Your task to perform on an android device: Open privacy settings Image 0: 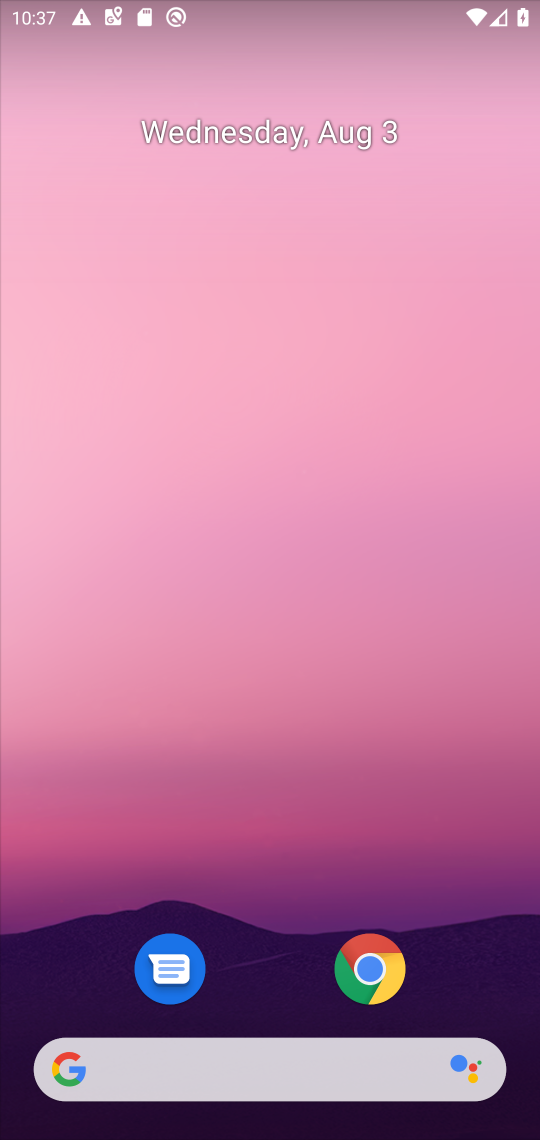
Step 0: drag from (296, 1013) to (256, 94)
Your task to perform on an android device: Open privacy settings Image 1: 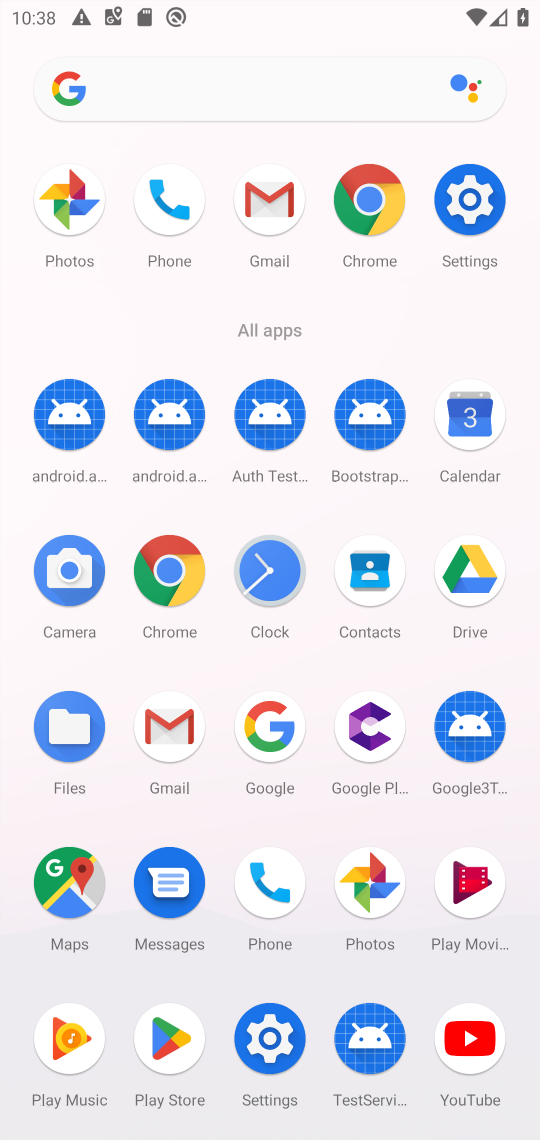
Step 1: click (264, 1034)
Your task to perform on an android device: Open privacy settings Image 2: 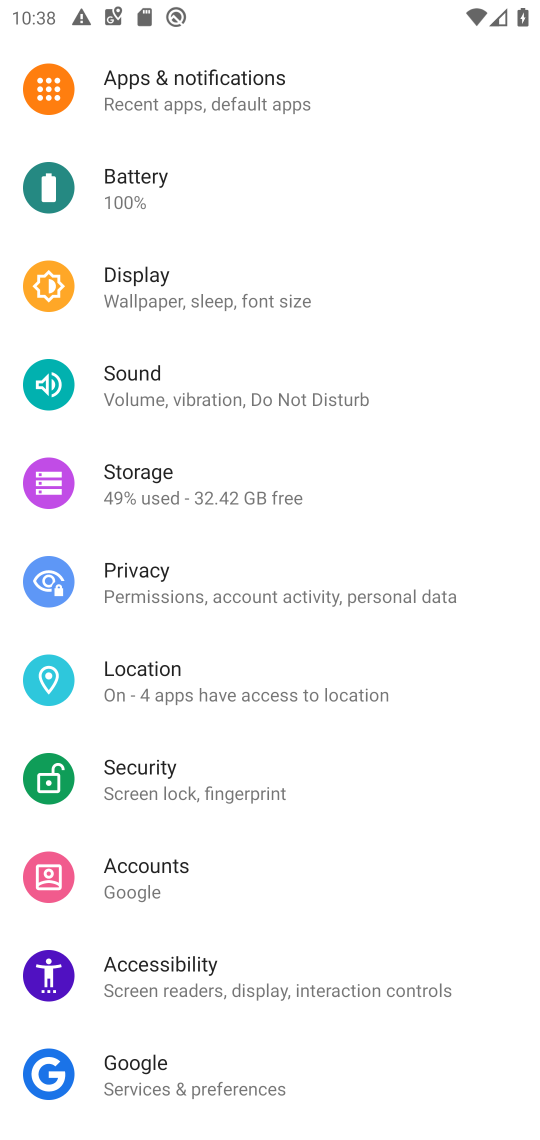
Step 2: click (135, 588)
Your task to perform on an android device: Open privacy settings Image 3: 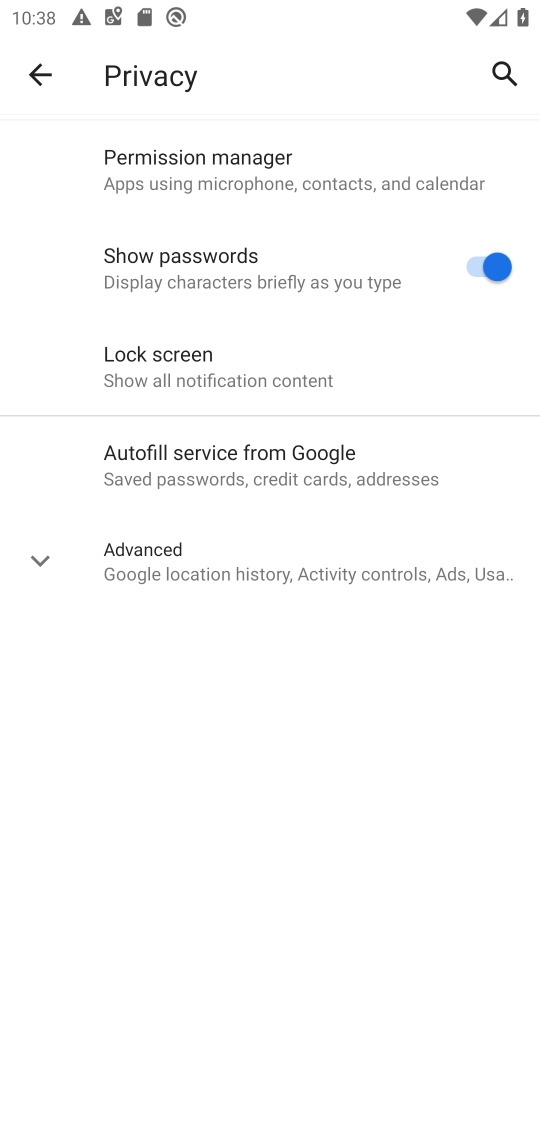
Step 3: click (149, 560)
Your task to perform on an android device: Open privacy settings Image 4: 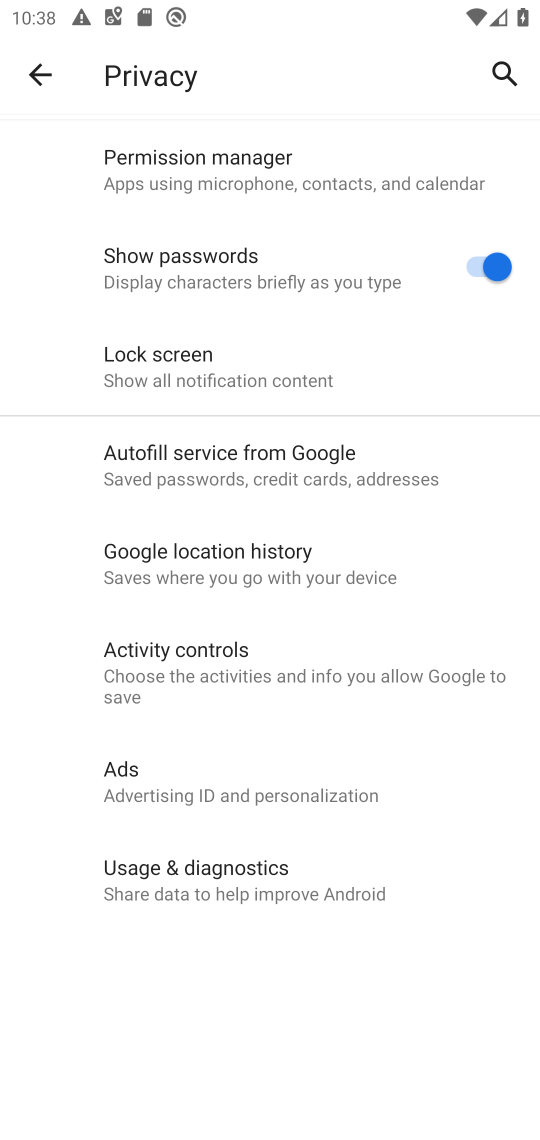
Step 4: task complete